Your task to perform on an android device: change the clock display to show seconds Image 0: 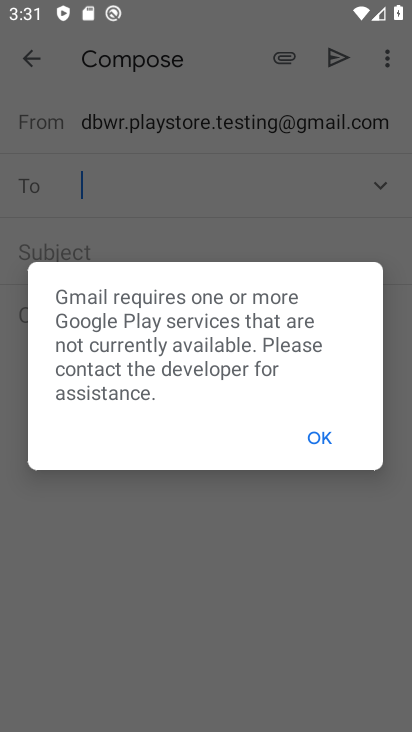
Step 0: click (318, 425)
Your task to perform on an android device: change the clock display to show seconds Image 1: 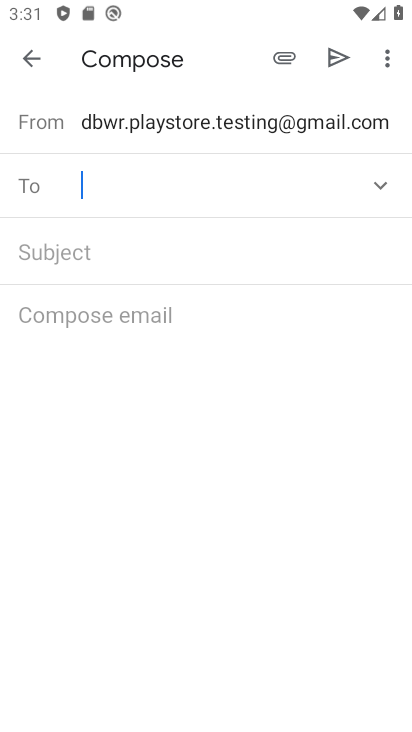
Step 1: press home button
Your task to perform on an android device: change the clock display to show seconds Image 2: 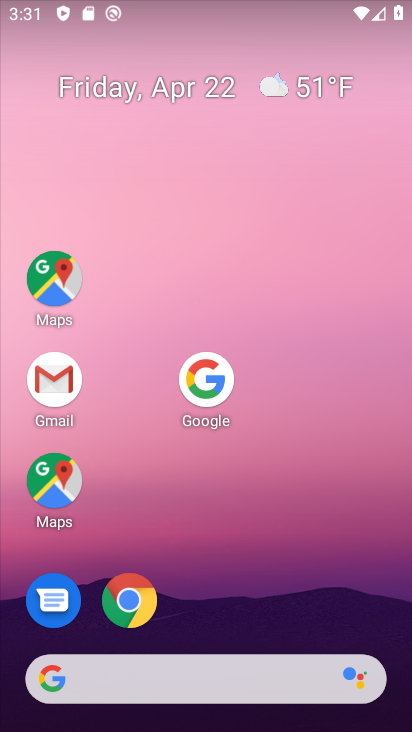
Step 2: drag from (299, 540) to (242, 165)
Your task to perform on an android device: change the clock display to show seconds Image 3: 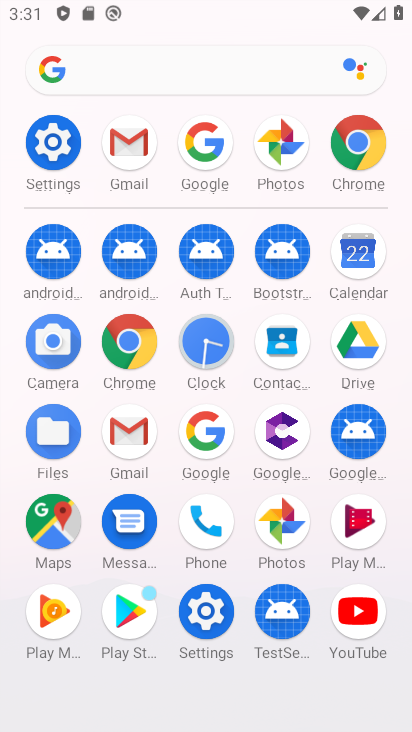
Step 3: click (204, 347)
Your task to perform on an android device: change the clock display to show seconds Image 4: 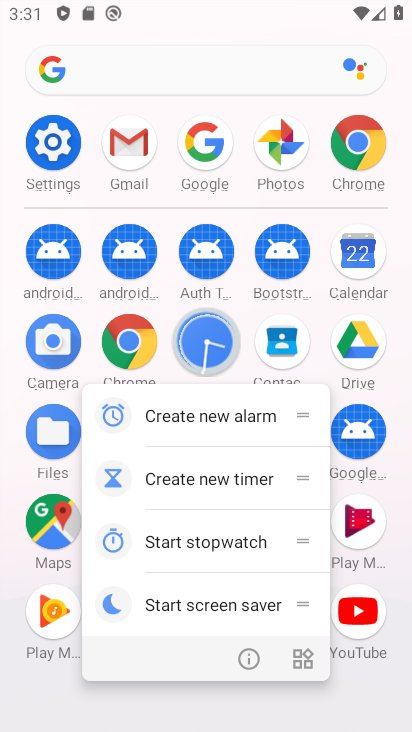
Step 4: click (204, 347)
Your task to perform on an android device: change the clock display to show seconds Image 5: 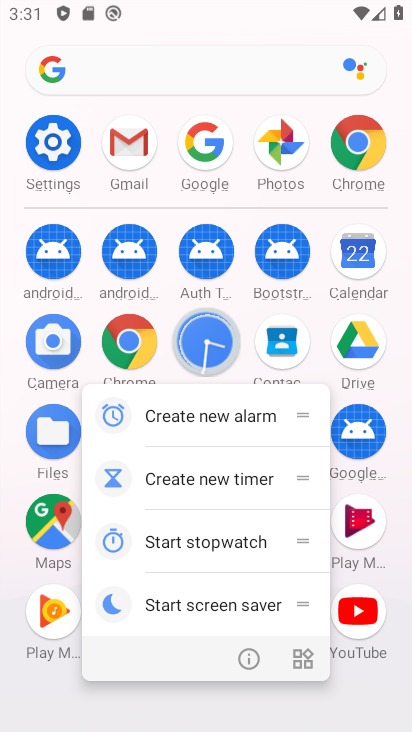
Step 5: click (204, 345)
Your task to perform on an android device: change the clock display to show seconds Image 6: 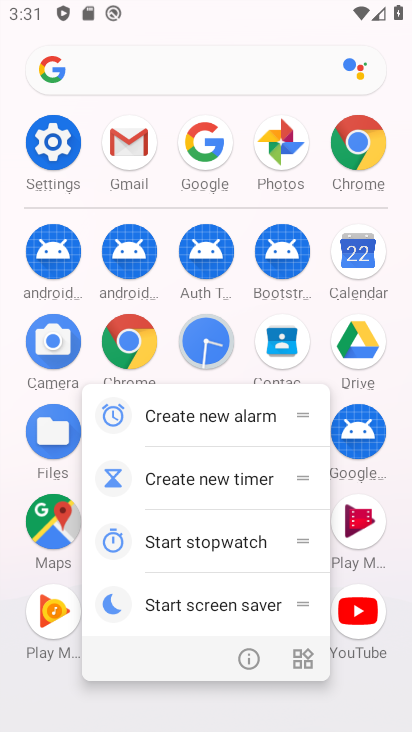
Step 6: click (199, 339)
Your task to perform on an android device: change the clock display to show seconds Image 7: 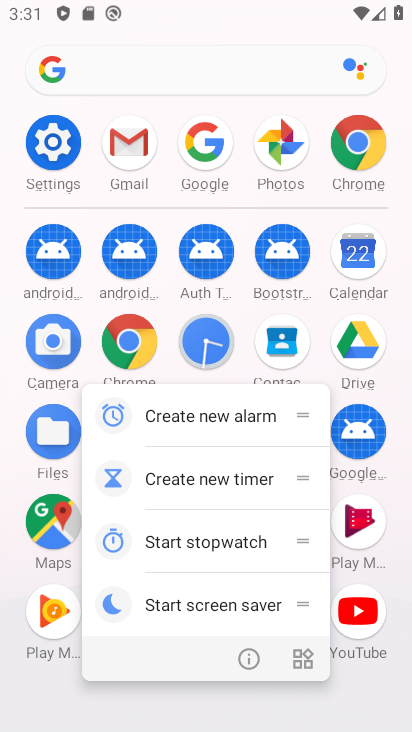
Step 7: click (200, 338)
Your task to perform on an android device: change the clock display to show seconds Image 8: 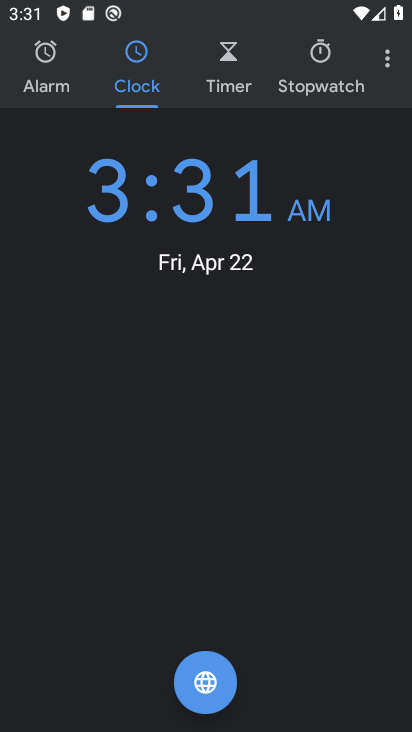
Step 8: click (379, 60)
Your task to perform on an android device: change the clock display to show seconds Image 9: 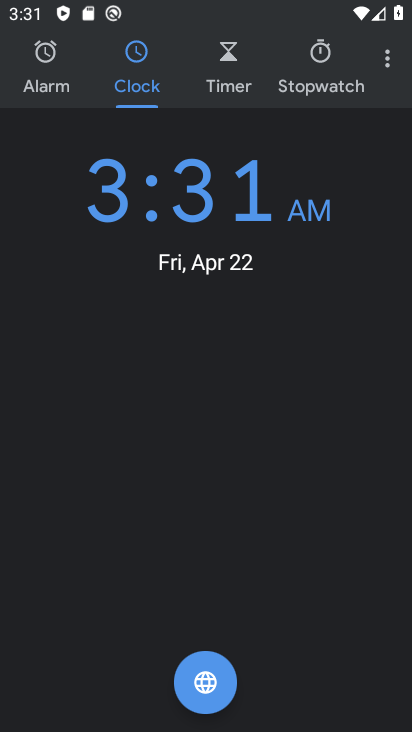
Step 9: click (384, 55)
Your task to perform on an android device: change the clock display to show seconds Image 10: 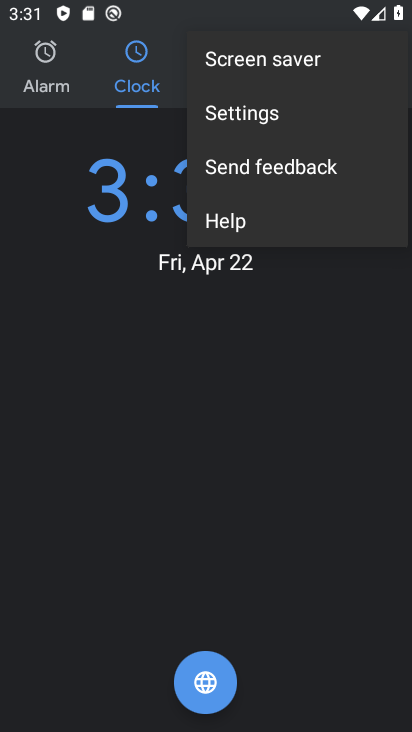
Step 10: click (231, 119)
Your task to perform on an android device: change the clock display to show seconds Image 11: 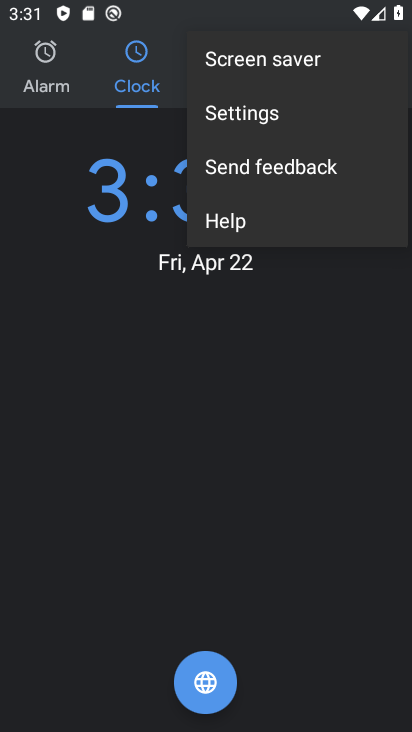
Step 11: click (232, 118)
Your task to perform on an android device: change the clock display to show seconds Image 12: 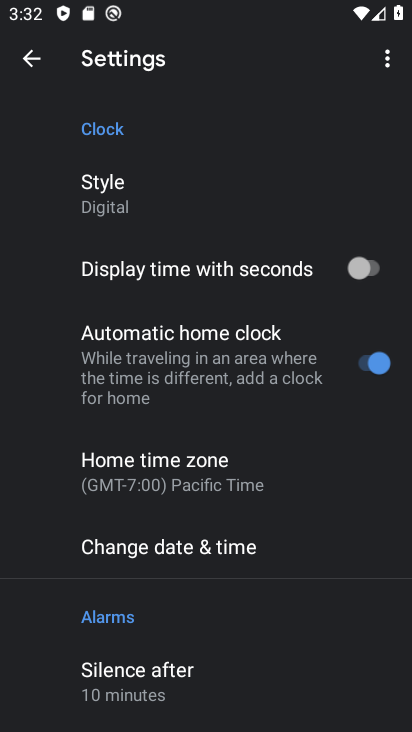
Step 12: click (349, 263)
Your task to perform on an android device: change the clock display to show seconds Image 13: 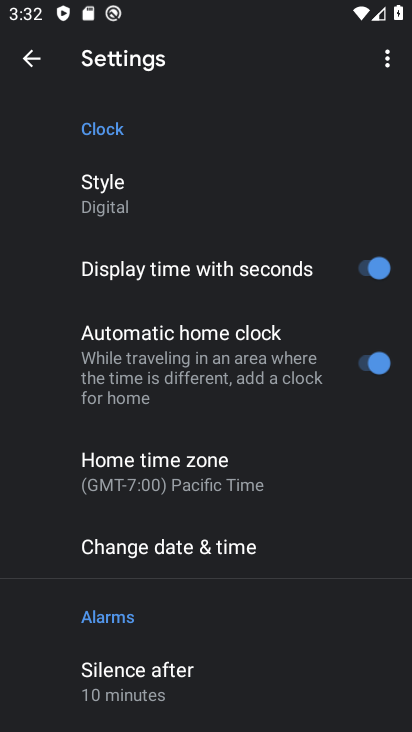
Step 13: task complete